Your task to perform on an android device: Search for logitech g910 on newegg.com, select the first entry, and add it to the cart. Image 0: 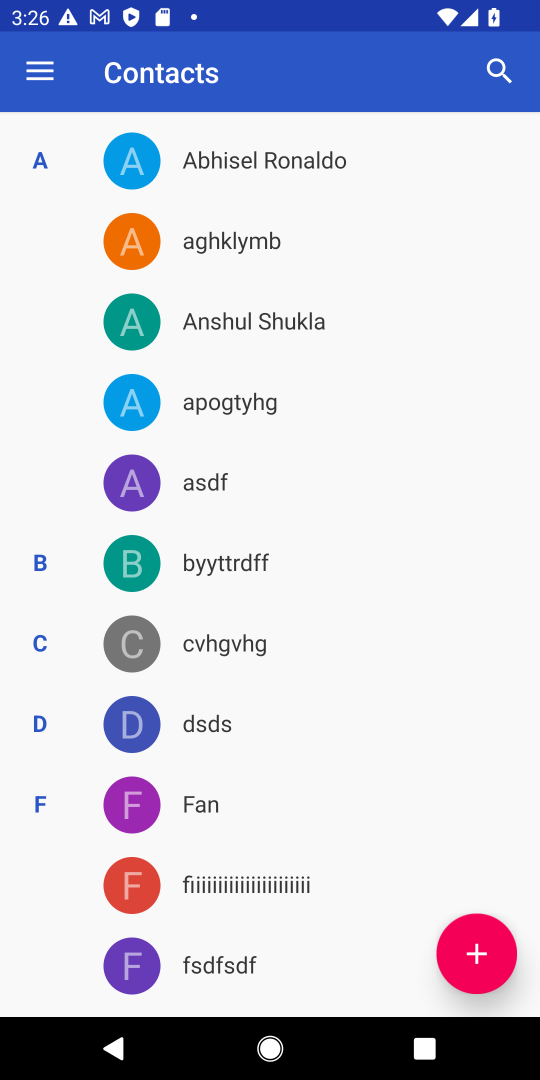
Step 0: press home button
Your task to perform on an android device: Search for logitech g910 on newegg.com, select the first entry, and add it to the cart. Image 1: 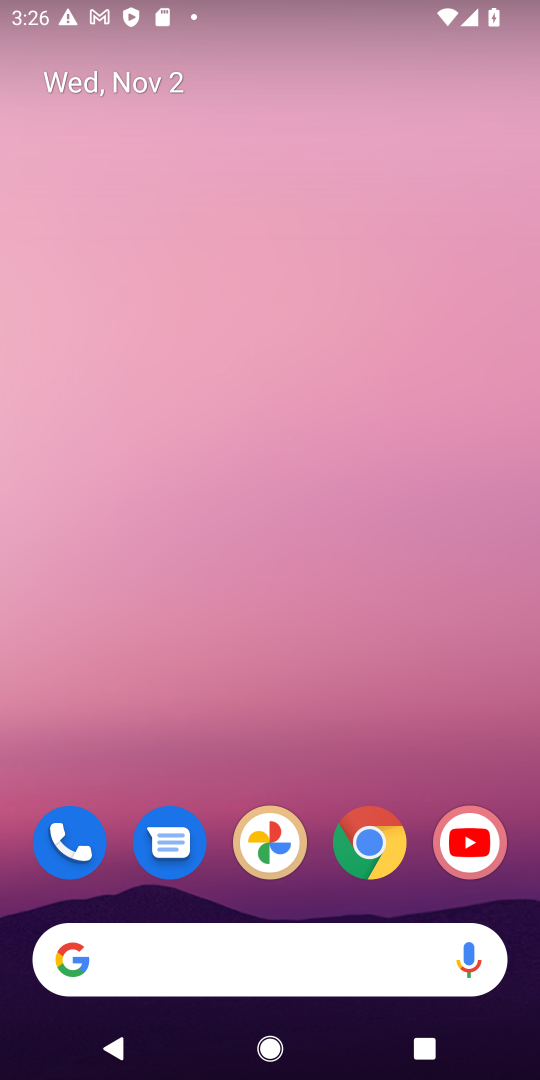
Step 1: click (372, 852)
Your task to perform on an android device: Search for logitech g910 on newegg.com, select the first entry, and add it to the cart. Image 2: 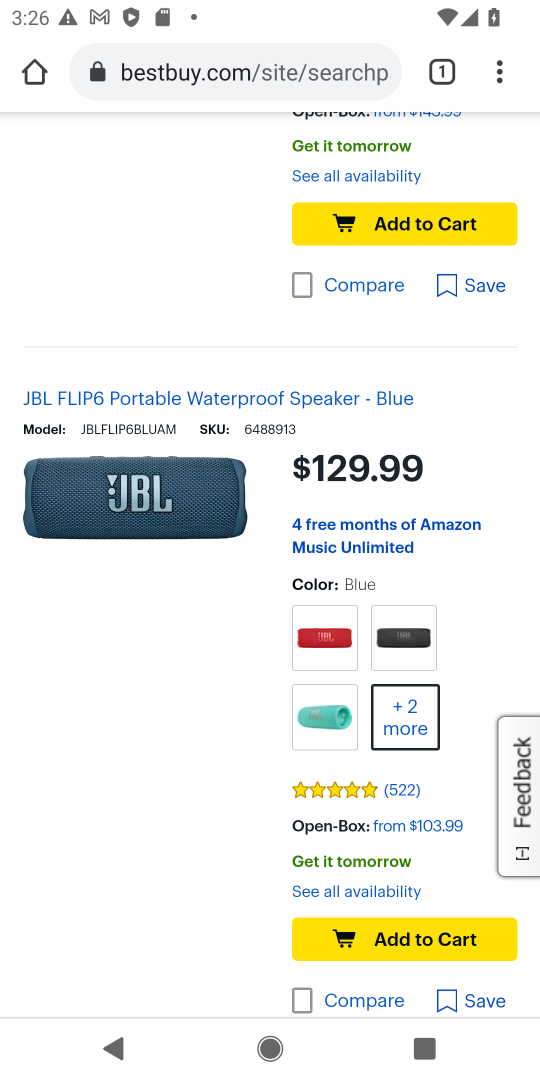
Step 2: click (146, 84)
Your task to perform on an android device: Search for logitech g910 on newegg.com, select the first entry, and add it to the cart. Image 3: 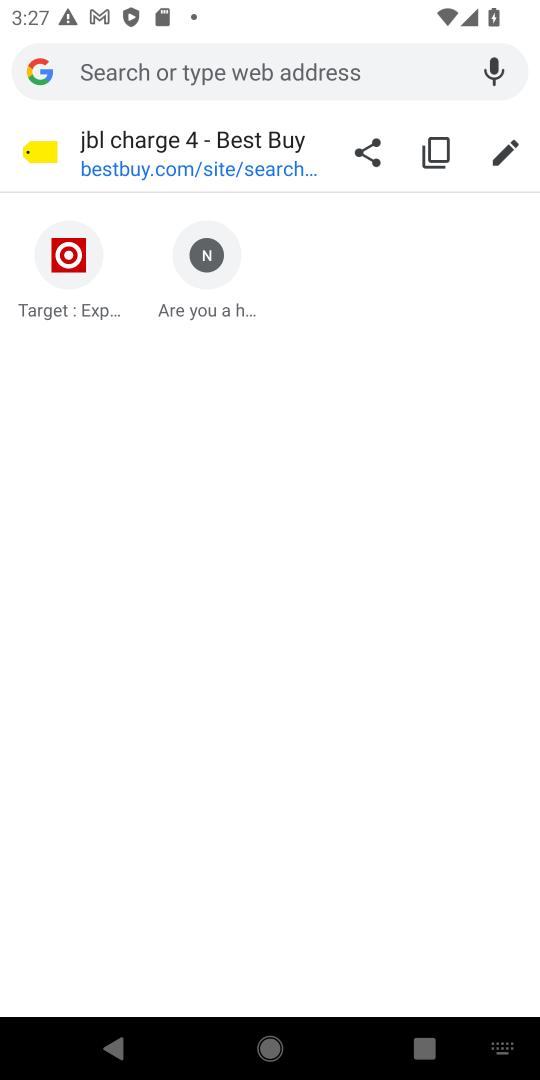
Step 3: type "newegg.com"
Your task to perform on an android device: Search for logitech g910 on newegg.com, select the first entry, and add it to the cart. Image 4: 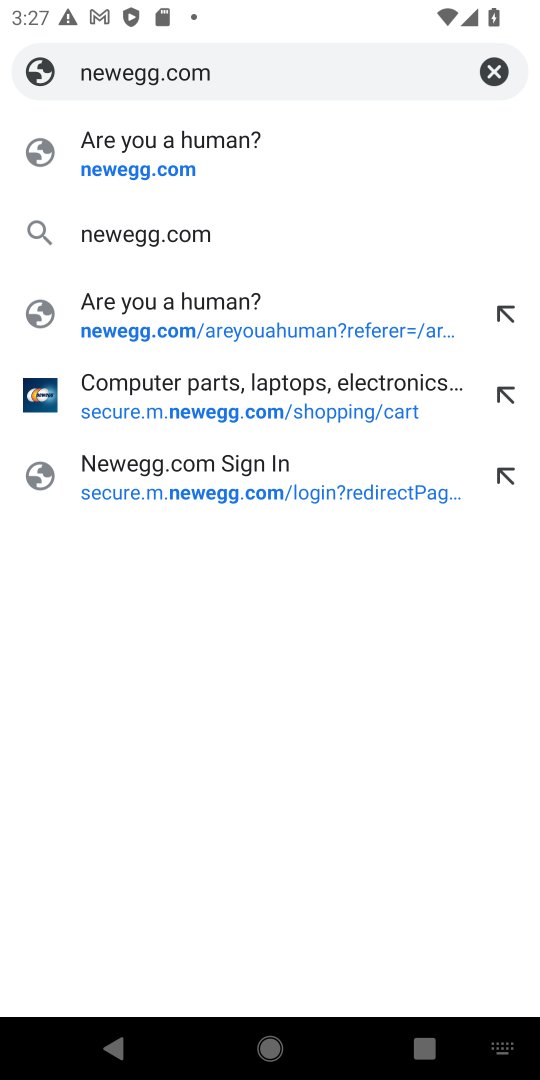
Step 4: type ""
Your task to perform on an android device: Search for logitech g910 on newegg.com, select the first entry, and add it to the cart. Image 5: 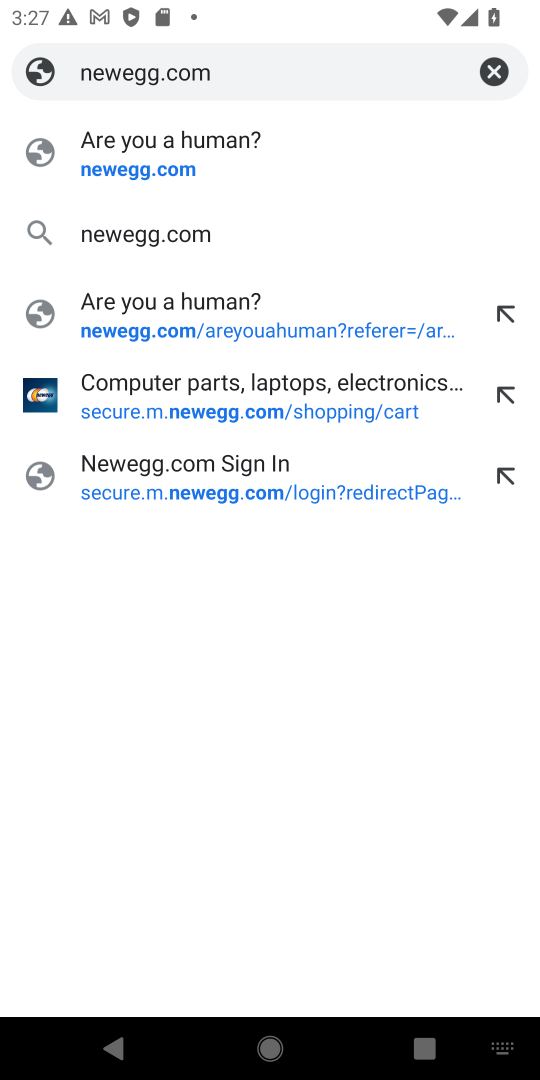
Step 5: press enter
Your task to perform on an android device: Search for logitech g910 on newegg.com, select the first entry, and add it to the cart. Image 6: 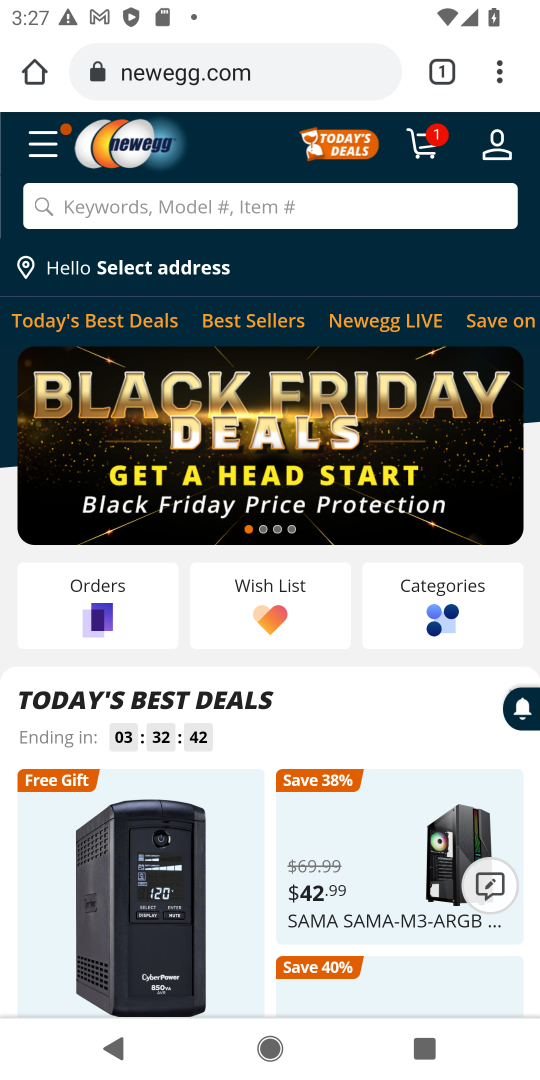
Step 6: click (372, 218)
Your task to perform on an android device: Search for logitech g910 on newegg.com, select the first entry, and add it to the cart. Image 7: 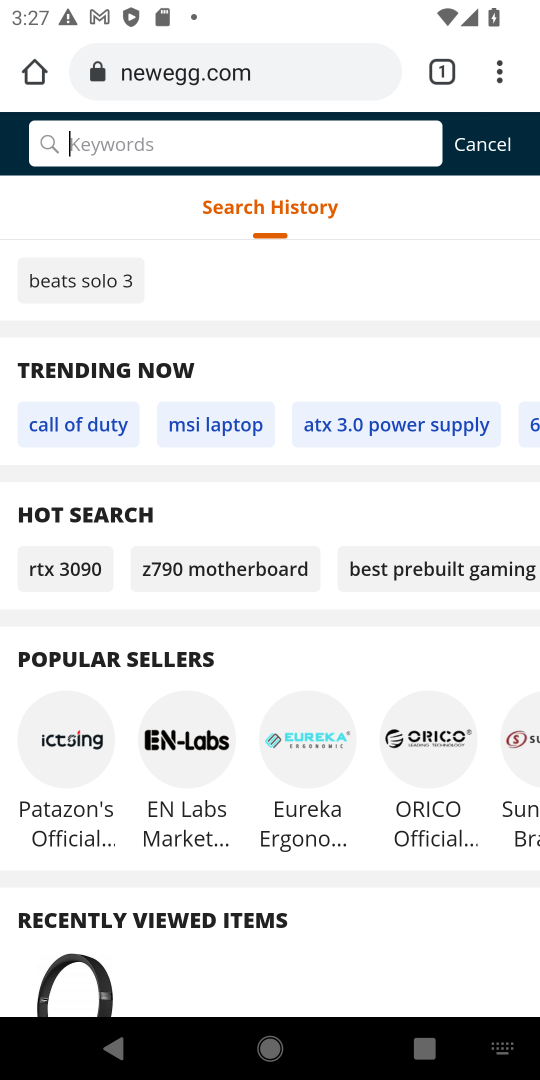
Step 7: type "logitech g910"
Your task to perform on an android device: Search for logitech g910 on newegg.com, select the first entry, and add it to the cart. Image 8: 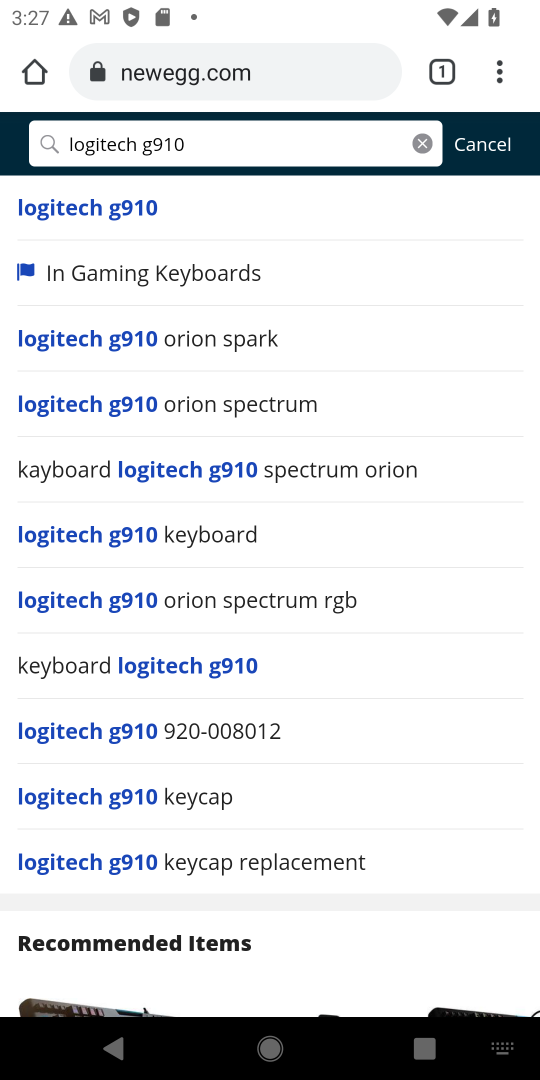
Step 8: click (101, 211)
Your task to perform on an android device: Search for logitech g910 on newegg.com, select the first entry, and add it to the cart. Image 9: 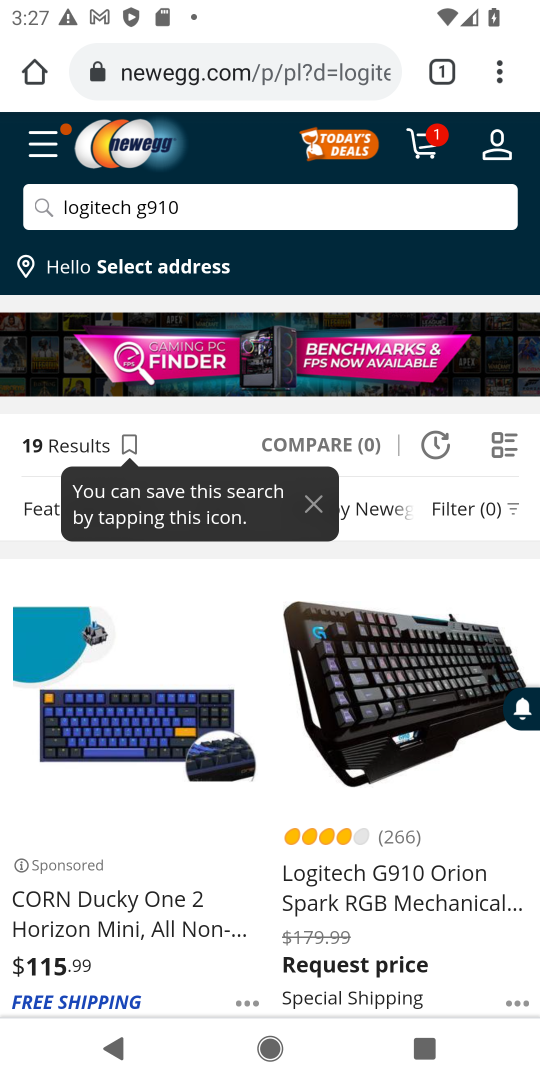
Step 9: click (356, 851)
Your task to perform on an android device: Search for logitech g910 on newegg.com, select the first entry, and add it to the cart. Image 10: 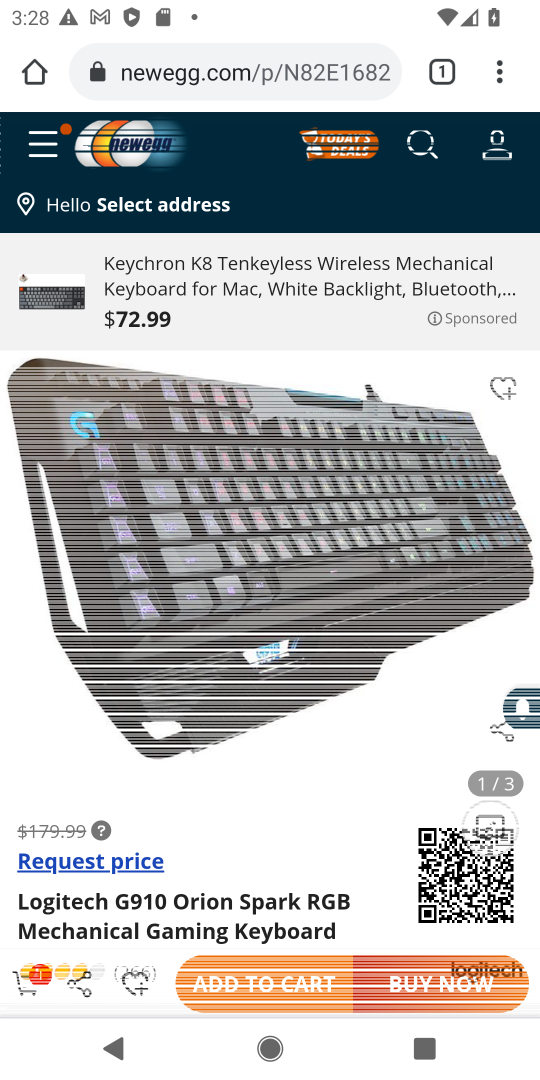
Step 10: click (261, 983)
Your task to perform on an android device: Search for logitech g910 on newegg.com, select the first entry, and add it to the cart. Image 11: 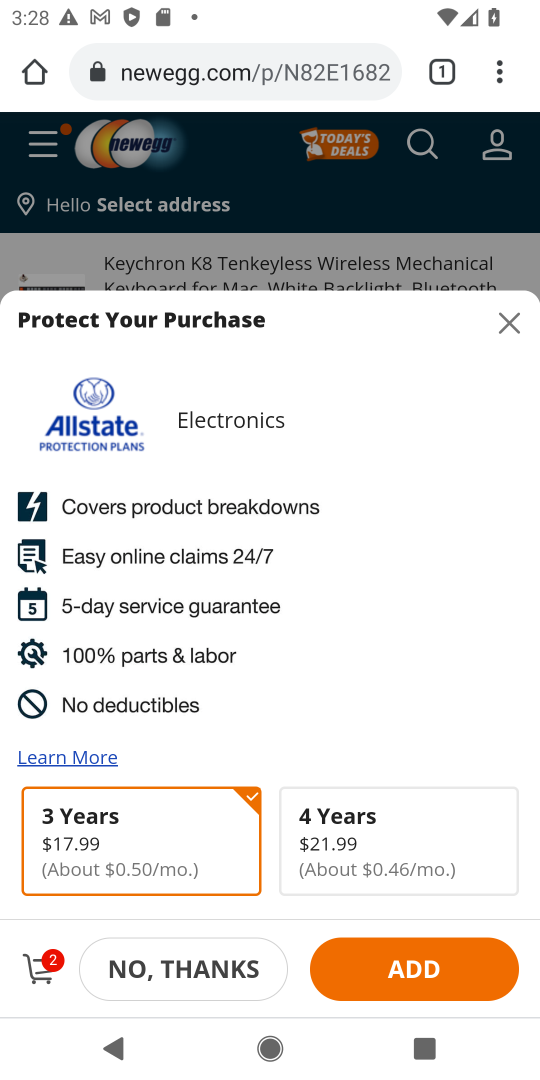
Step 11: task complete